Your task to perform on an android device: check out phone information Image 0: 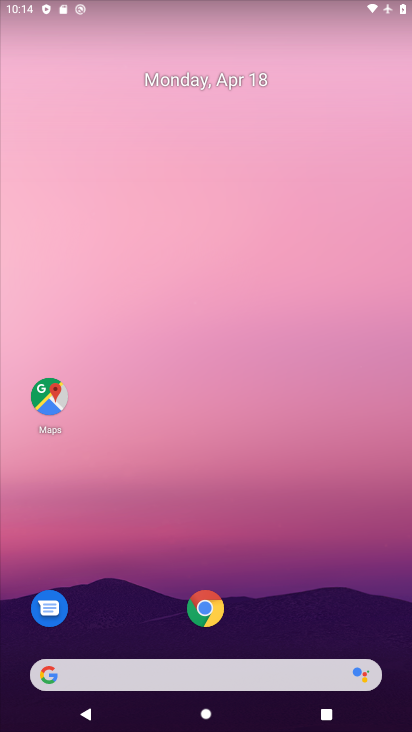
Step 0: drag from (289, 591) to (284, 246)
Your task to perform on an android device: check out phone information Image 1: 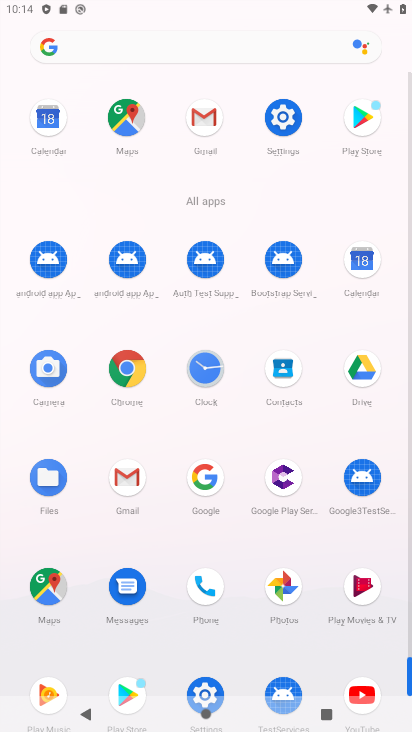
Step 1: click (211, 592)
Your task to perform on an android device: check out phone information Image 2: 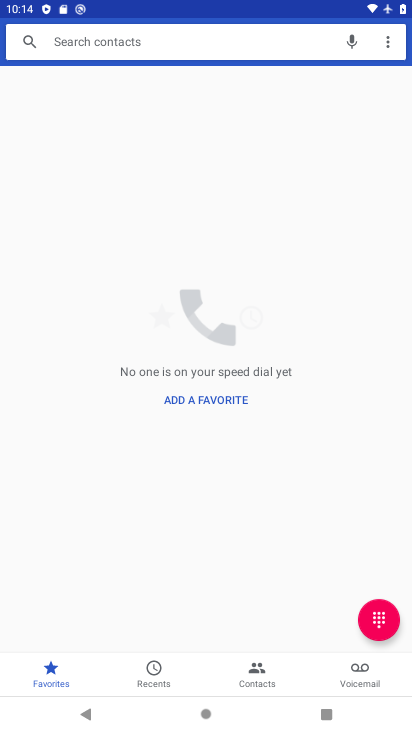
Step 2: click (390, 43)
Your task to perform on an android device: check out phone information Image 3: 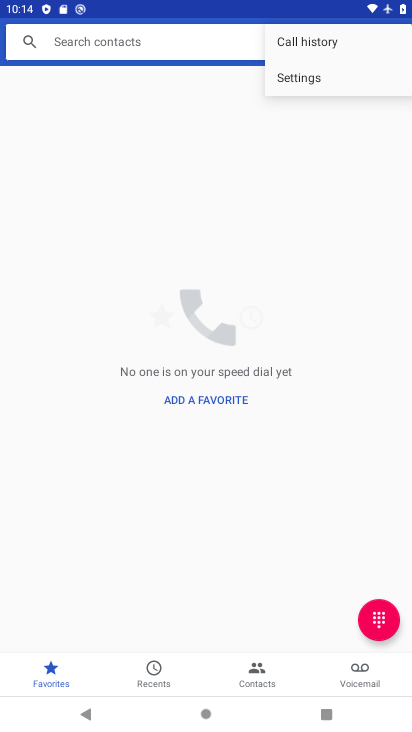
Step 3: click (318, 78)
Your task to perform on an android device: check out phone information Image 4: 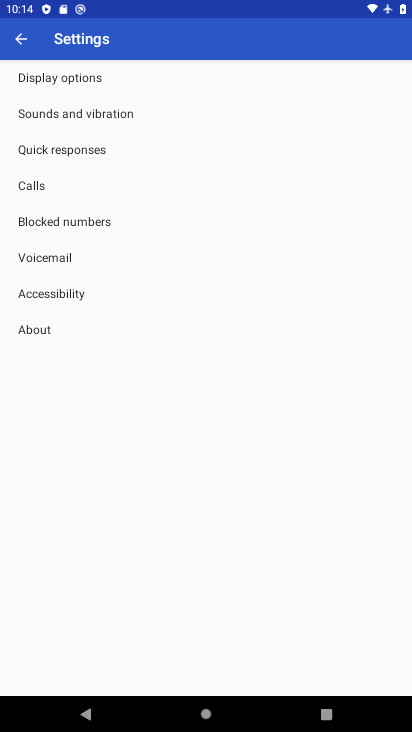
Step 4: click (36, 331)
Your task to perform on an android device: check out phone information Image 5: 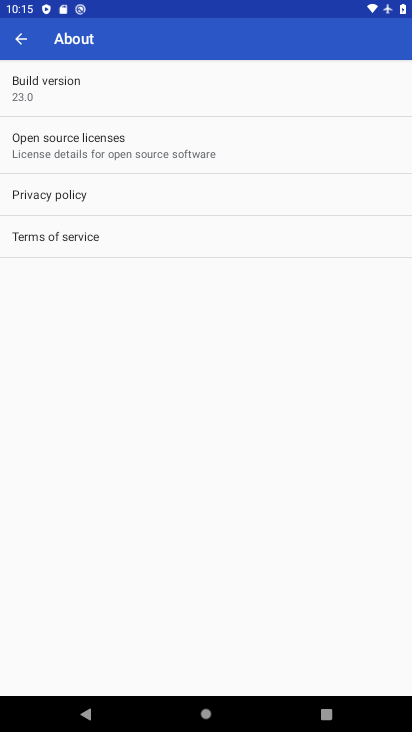
Step 5: task complete